Your task to perform on an android device: Open Youtube and go to the subscriptions tab Image 0: 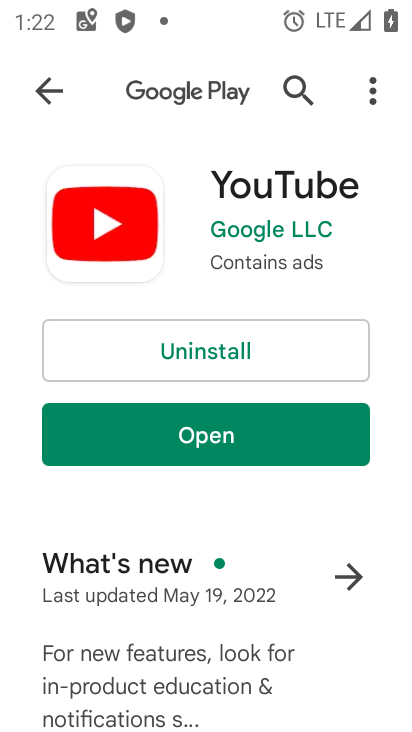
Step 0: press home button
Your task to perform on an android device: Open Youtube and go to the subscriptions tab Image 1: 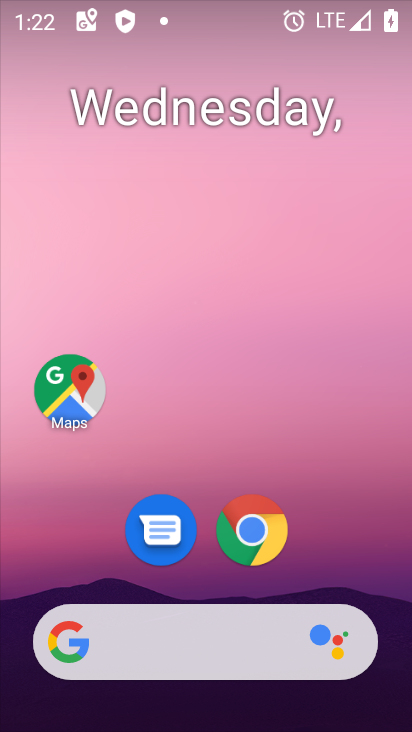
Step 1: drag from (370, 496) to (361, 158)
Your task to perform on an android device: Open Youtube and go to the subscriptions tab Image 2: 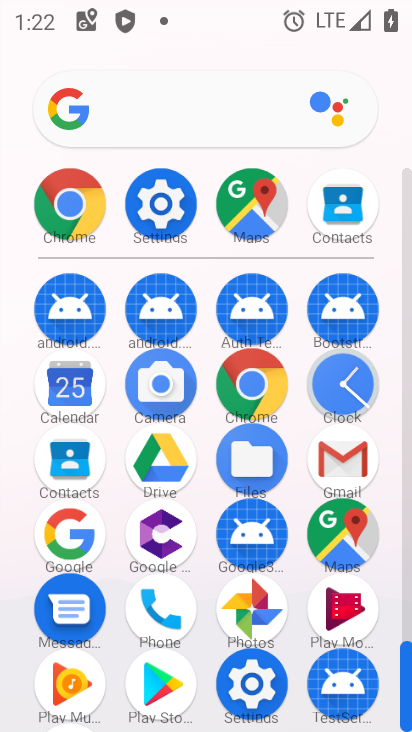
Step 2: drag from (223, 540) to (270, 260)
Your task to perform on an android device: Open Youtube and go to the subscriptions tab Image 3: 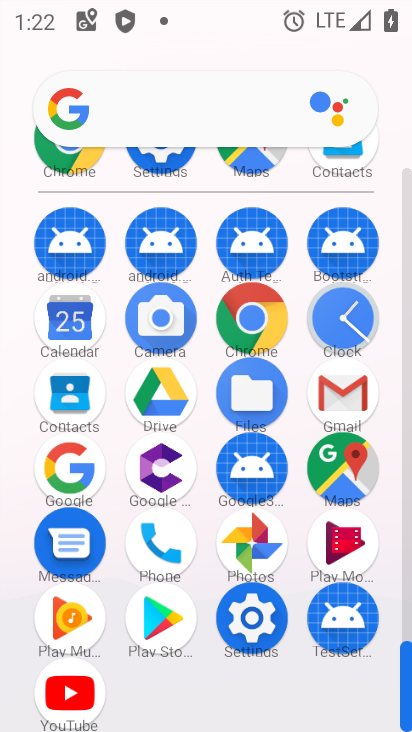
Step 3: click (48, 691)
Your task to perform on an android device: Open Youtube and go to the subscriptions tab Image 4: 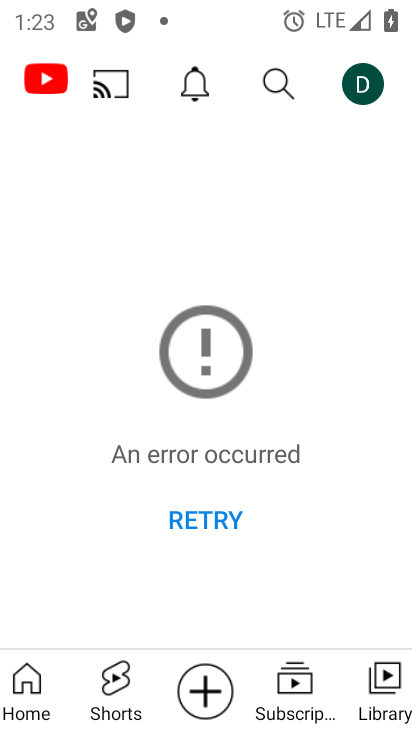
Step 4: click (313, 687)
Your task to perform on an android device: Open Youtube and go to the subscriptions tab Image 5: 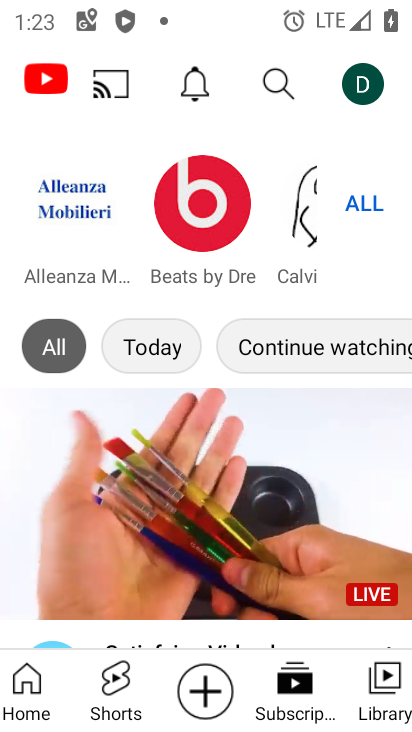
Step 5: task complete